Your task to perform on an android device: toggle javascript in the chrome app Image 0: 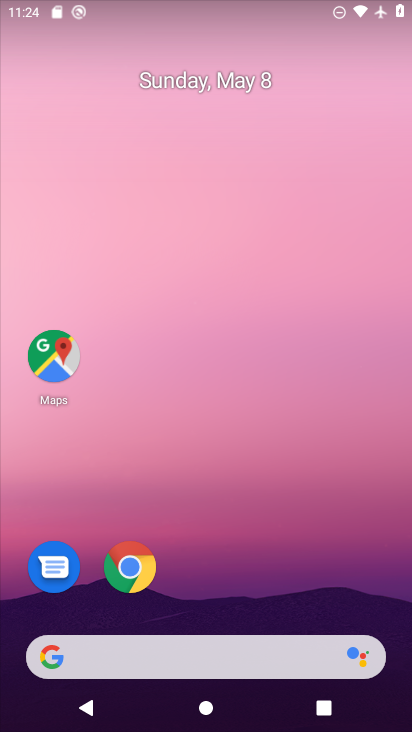
Step 0: click (139, 584)
Your task to perform on an android device: toggle javascript in the chrome app Image 1: 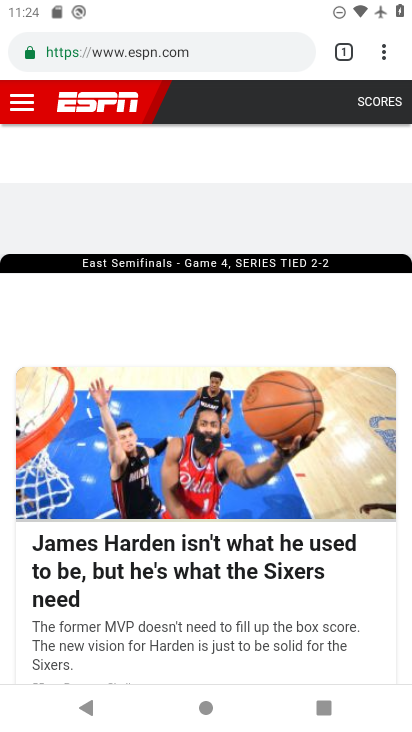
Step 1: click (385, 57)
Your task to perform on an android device: toggle javascript in the chrome app Image 2: 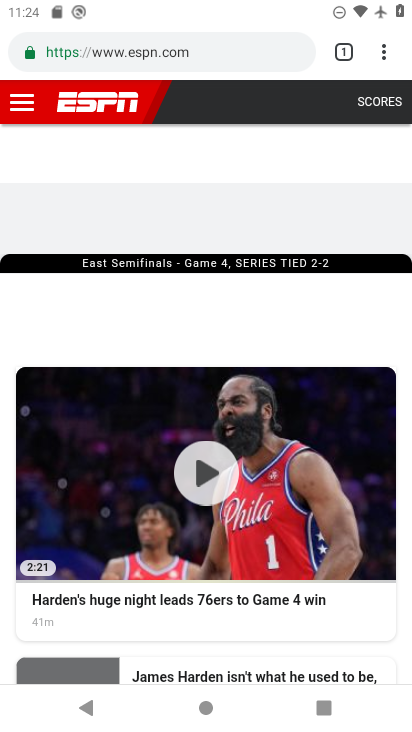
Step 2: click (382, 47)
Your task to perform on an android device: toggle javascript in the chrome app Image 3: 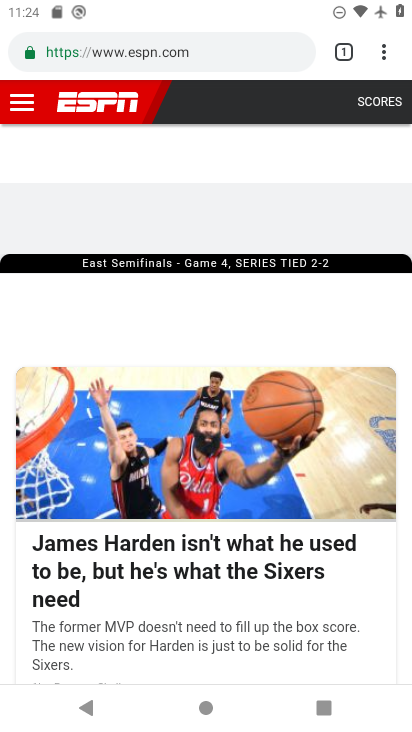
Step 3: click (385, 43)
Your task to perform on an android device: toggle javascript in the chrome app Image 4: 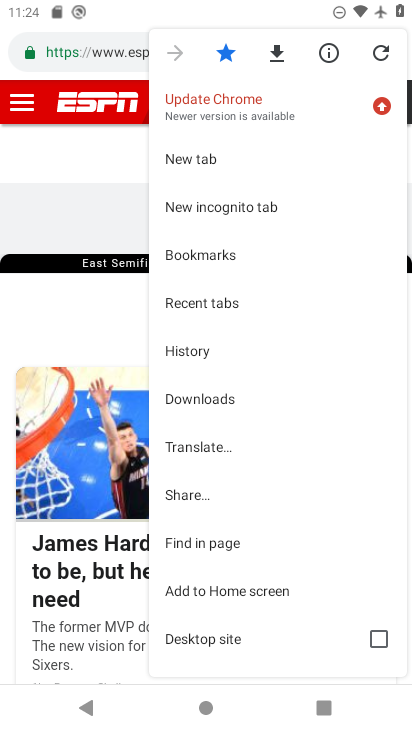
Step 4: drag from (229, 550) to (250, 231)
Your task to perform on an android device: toggle javascript in the chrome app Image 5: 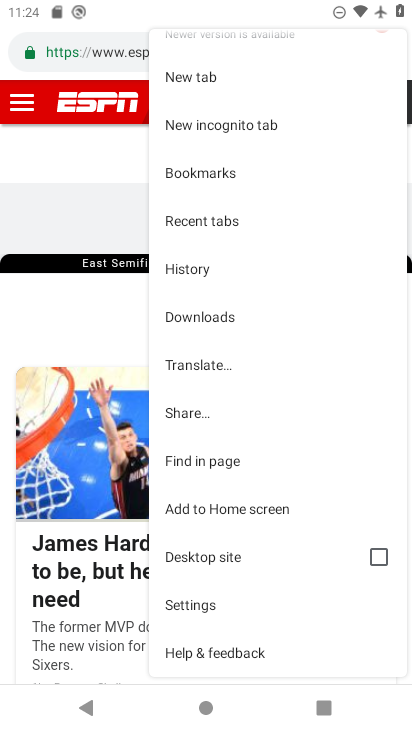
Step 5: click (213, 611)
Your task to perform on an android device: toggle javascript in the chrome app Image 6: 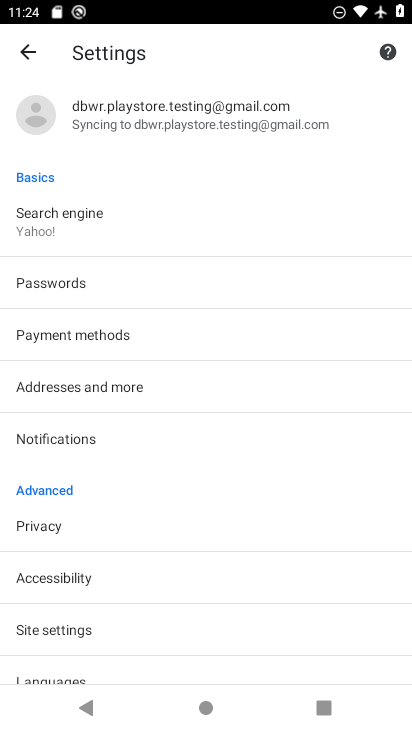
Step 6: drag from (186, 596) to (145, 278)
Your task to perform on an android device: toggle javascript in the chrome app Image 7: 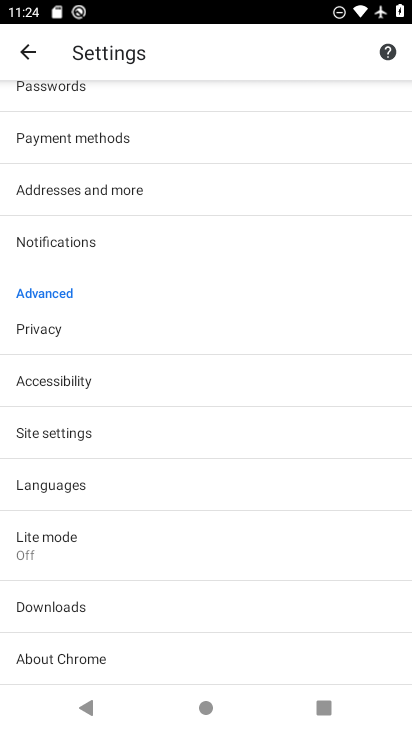
Step 7: click (68, 438)
Your task to perform on an android device: toggle javascript in the chrome app Image 8: 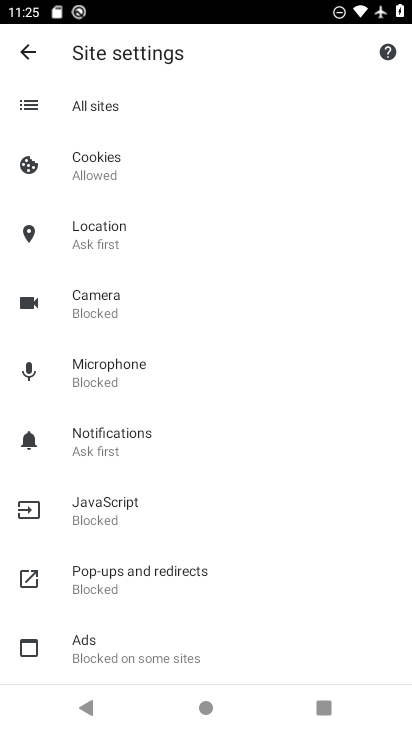
Step 8: click (104, 516)
Your task to perform on an android device: toggle javascript in the chrome app Image 9: 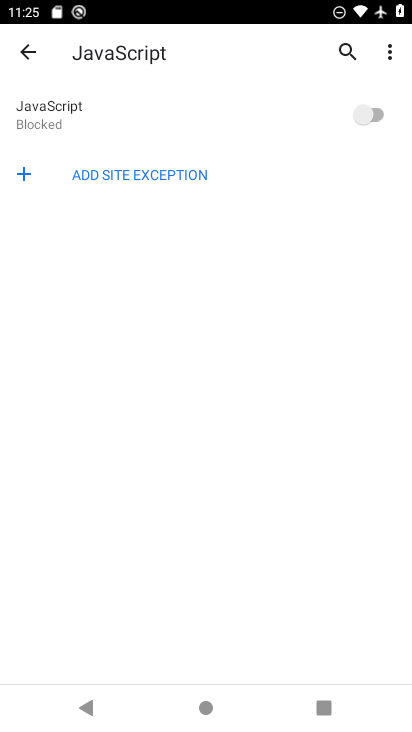
Step 9: click (378, 127)
Your task to perform on an android device: toggle javascript in the chrome app Image 10: 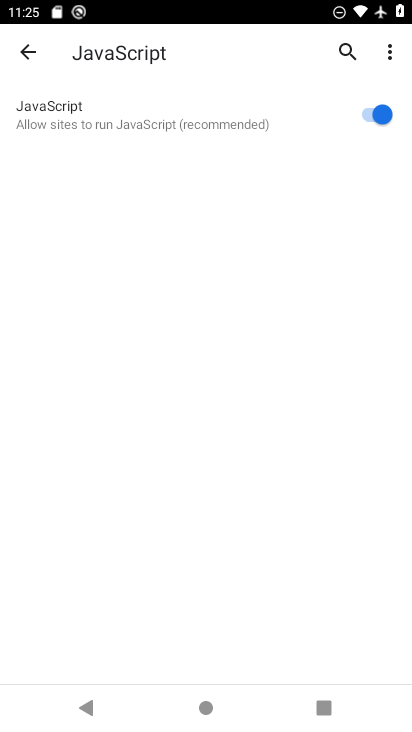
Step 10: task complete